Your task to perform on an android device: find which apps use the phone's location Image 0: 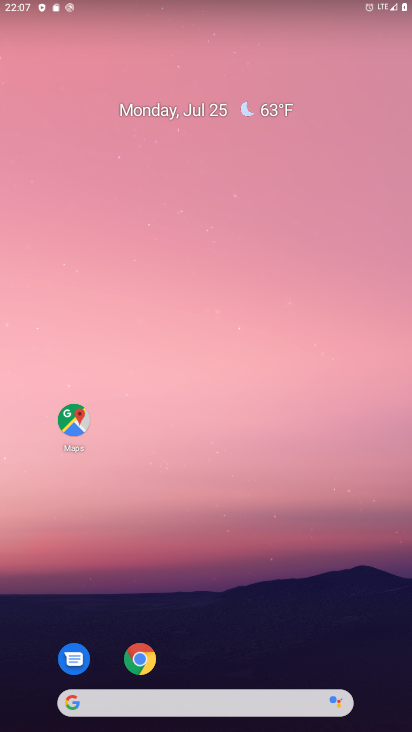
Step 0: drag from (213, 721) to (241, 217)
Your task to perform on an android device: find which apps use the phone's location Image 1: 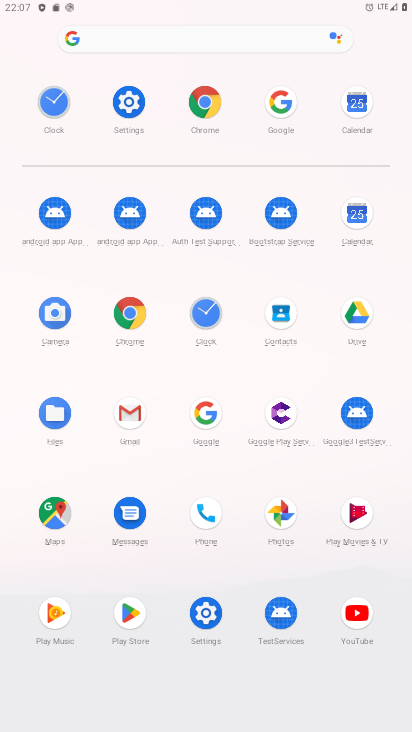
Step 1: click (124, 100)
Your task to perform on an android device: find which apps use the phone's location Image 2: 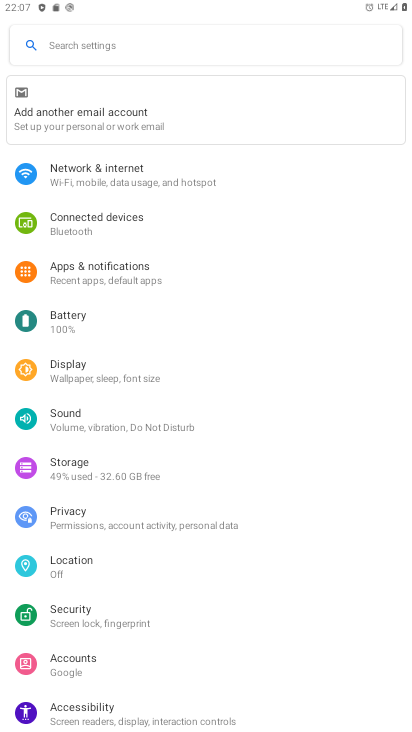
Step 2: click (67, 561)
Your task to perform on an android device: find which apps use the phone's location Image 3: 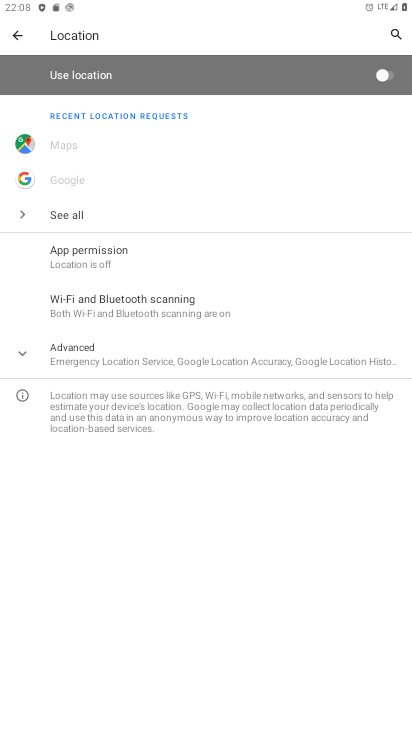
Step 3: click (104, 255)
Your task to perform on an android device: find which apps use the phone's location Image 4: 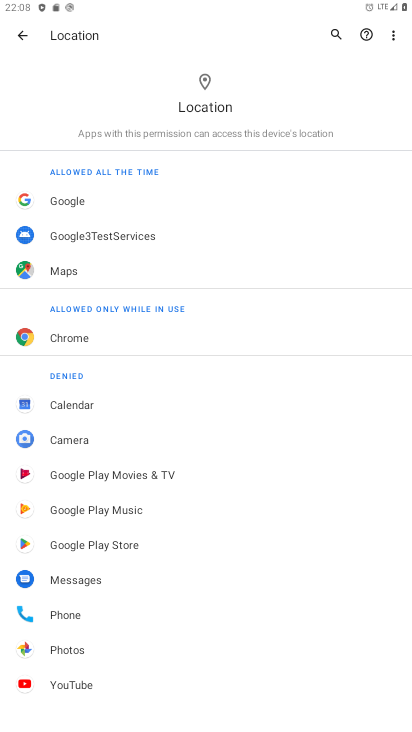
Step 4: task complete